Your task to perform on an android device: Open accessibility settings Image 0: 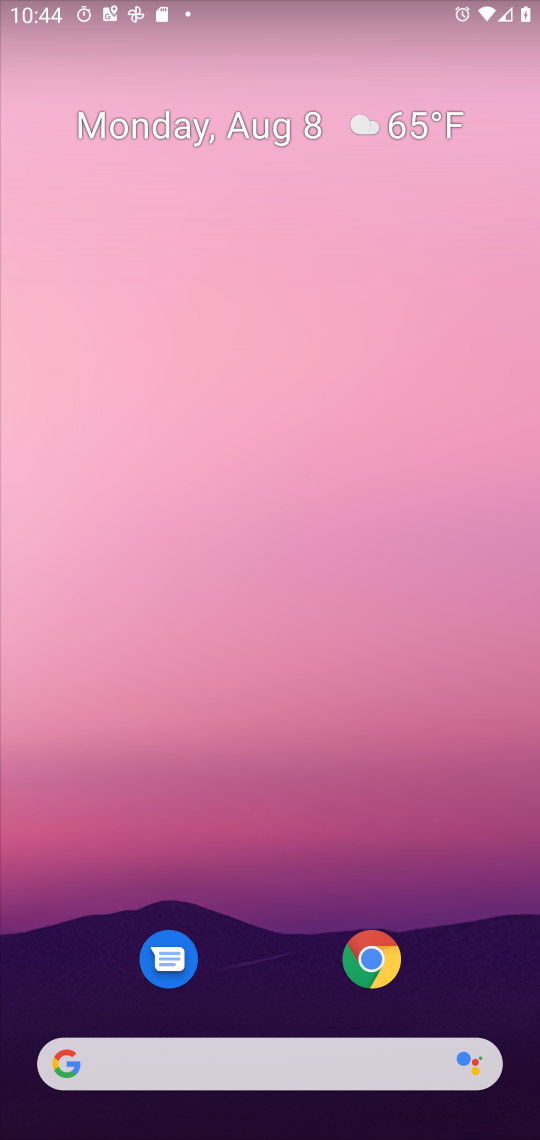
Step 0: drag from (476, 958) to (310, 79)
Your task to perform on an android device: Open accessibility settings Image 1: 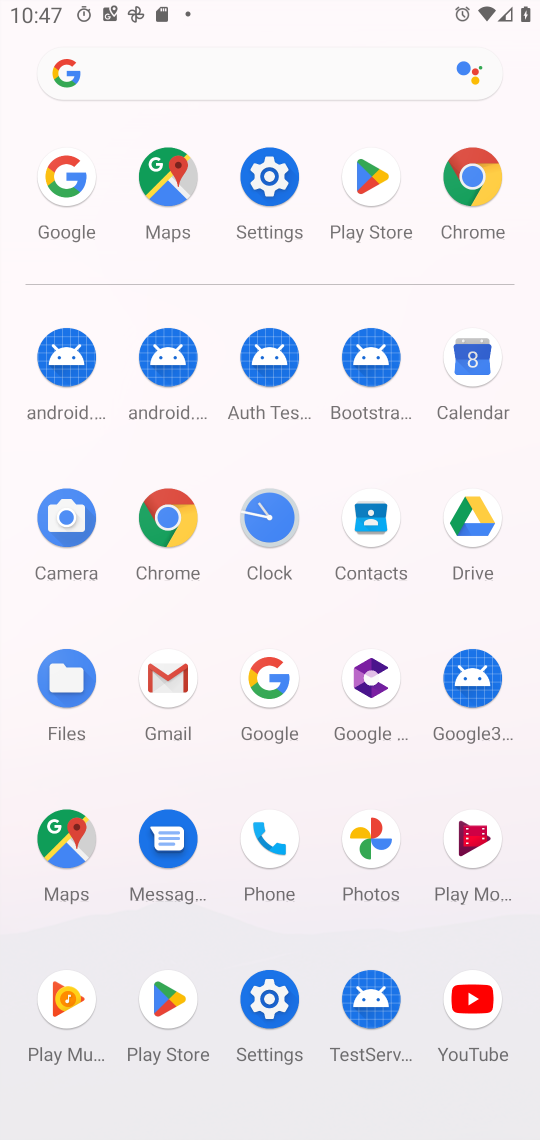
Step 1: click (265, 1003)
Your task to perform on an android device: Open accessibility settings Image 2: 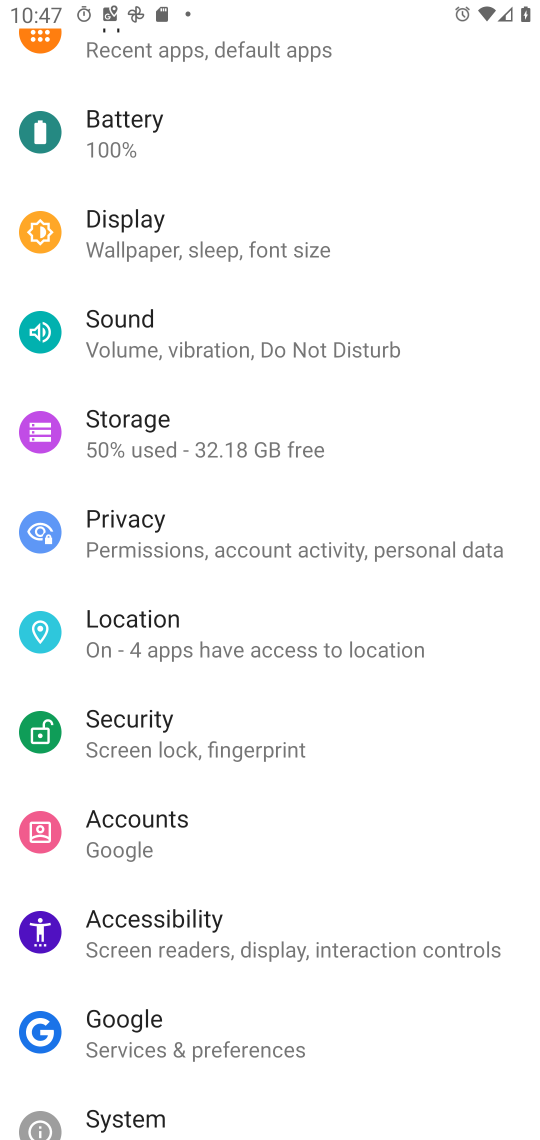
Step 2: click (125, 945)
Your task to perform on an android device: Open accessibility settings Image 3: 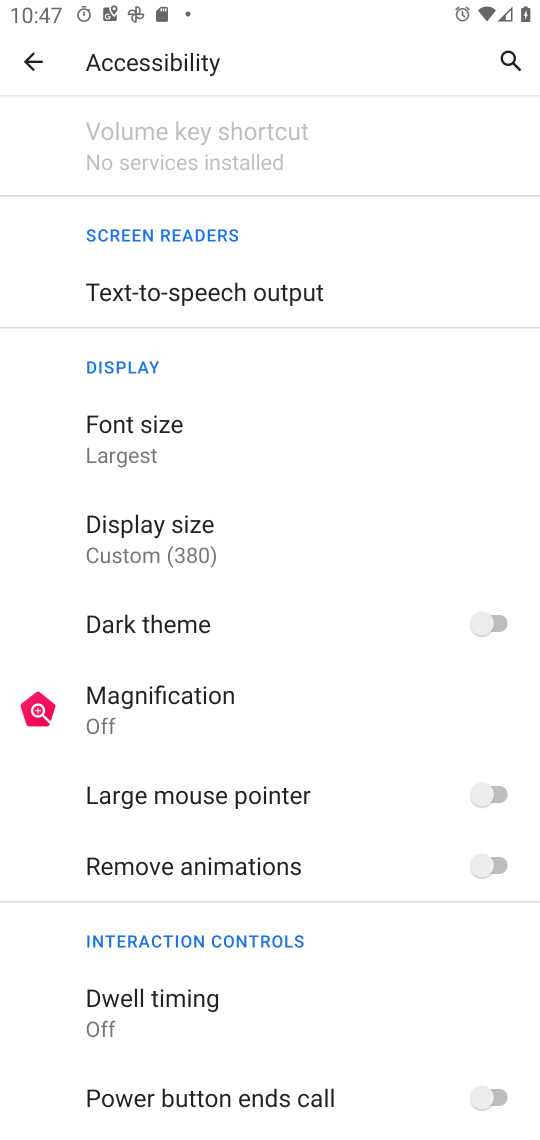
Step 3: task complete